Your task to perform on an android device: open app "Upside-Cash back on gas & food" (install if not already installed) and go to login screen Image 0: 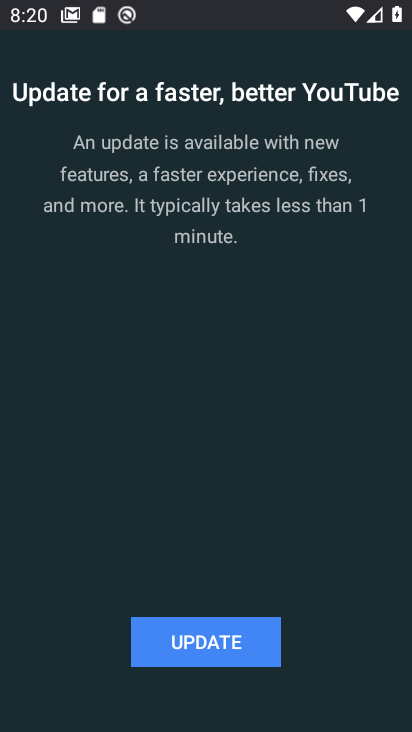
Step 0: press home button
Your task to perform on an android device: open app "Upside-Cash back on gas & food" (install if not already installed) and go to login screen Image 1: 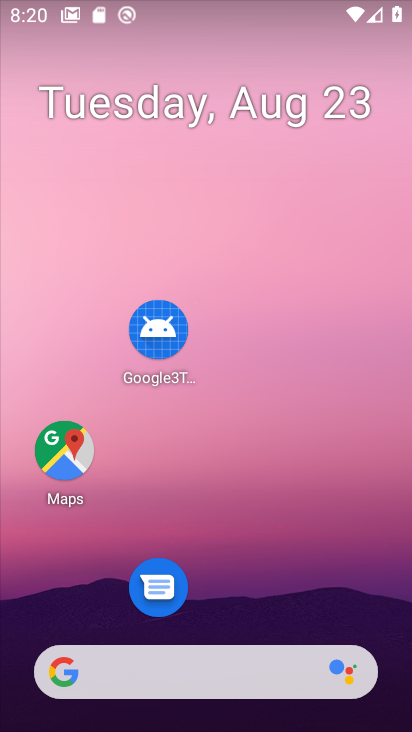
Step 1: drag from (224, 609) to (255, 127)
Your task to perform on an android device: open app "Upside-Cash back on gas & food" (install if not already installed) and go to login screen Image 2: 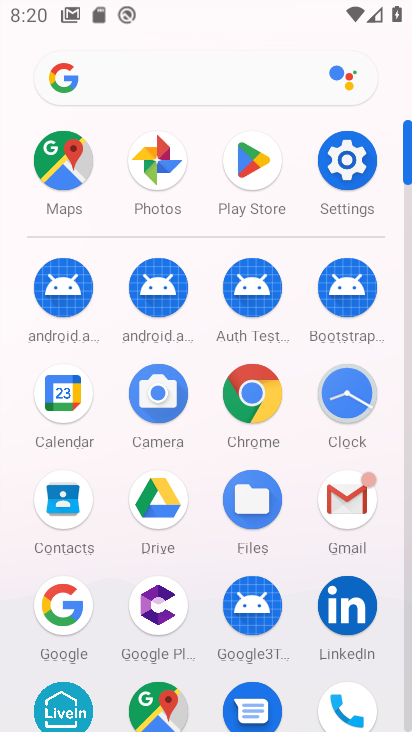
Step 2: click (230, 188)
Your task to perform on an android device: open app "Upside-Cash back on gas & food" (install if not already installed) and go to login screen Image 3: 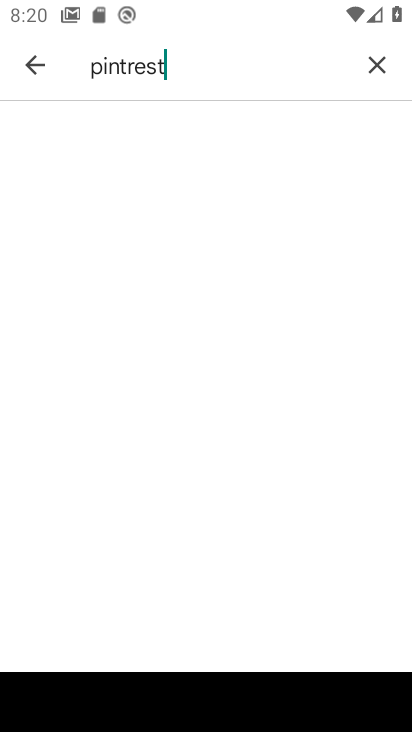
Step 3: click (372, 75)
Your task to perform on an android device: open app "Upside-Cash back on gas & food" (install if not already installed) and go to login screen Image 4: 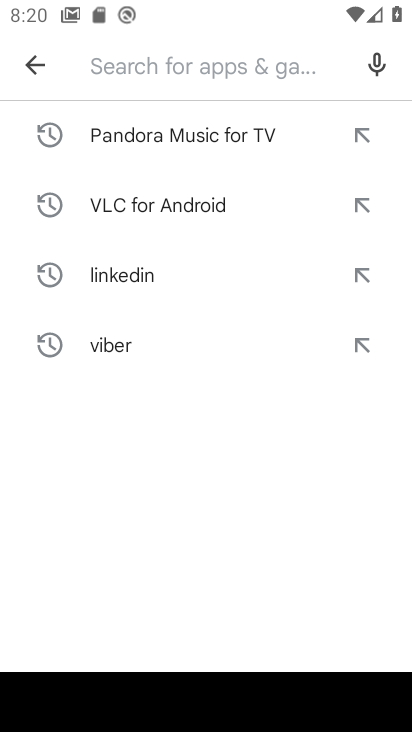
Step 4: type "upside"
Your task to perform on an android device: open app "Upside-Cash back on gas & food" (install if not already installed) and go to login screen Image 5: 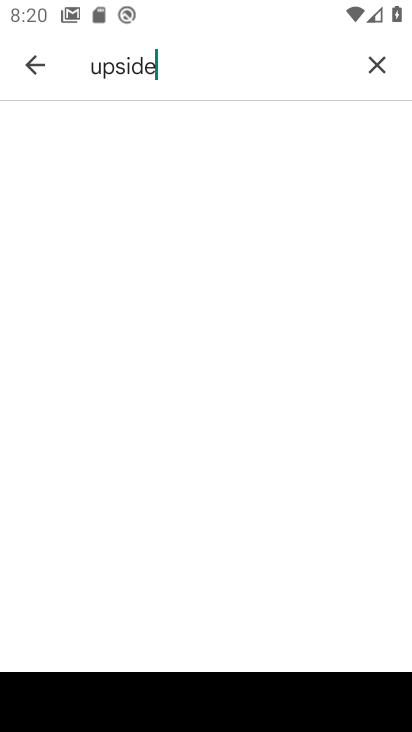
Step 5: task complete